Your task to perform on an android device: turn off priority inbox in the gmail app Image 0: 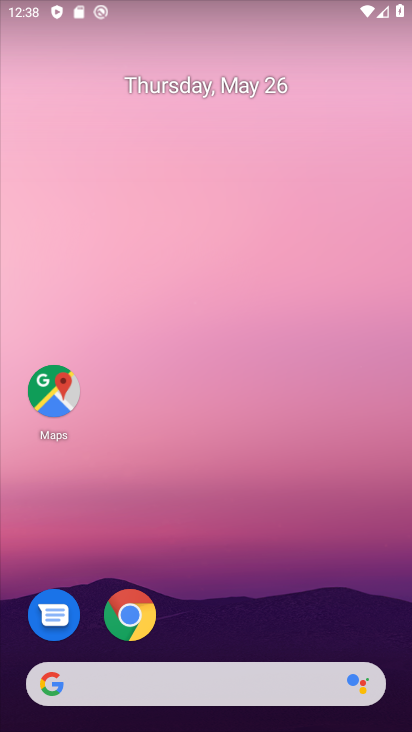
Step 0: drag from (251, 620) to (325, 101)
Your task to perform on an android device: turn off priority inbox in the gmail app Image 1: 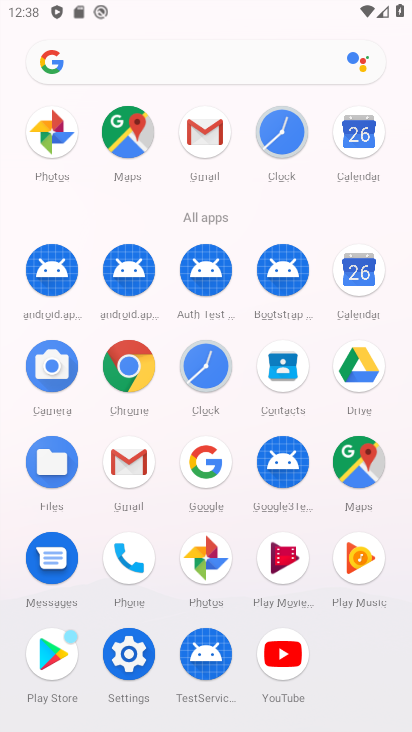
Step 1: click (209, 148)
Your task to perform on an android device: turn off priority inbox in the gmail app Image 2: 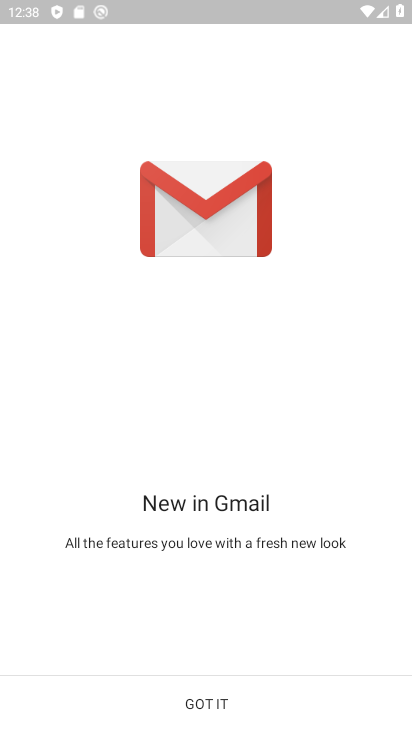
Step 2: click (202, 692)
Your task to perform on an android device: turn off priority inbox in the gmail app Image 3: 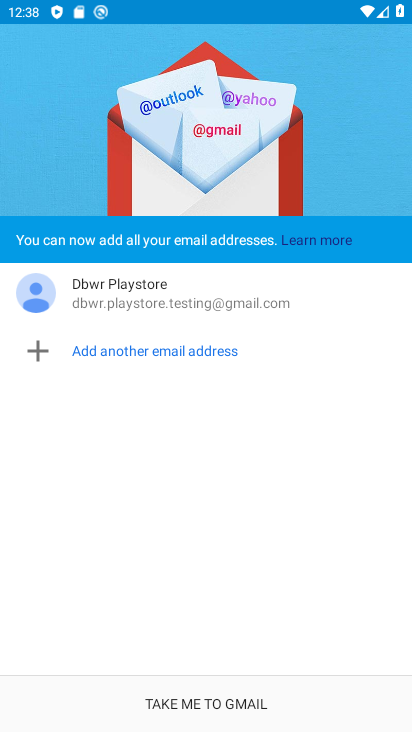
Step 3: click (217, 707)
Your task to perform on an android device: turn off priority inbox in the gmail app Image 4: 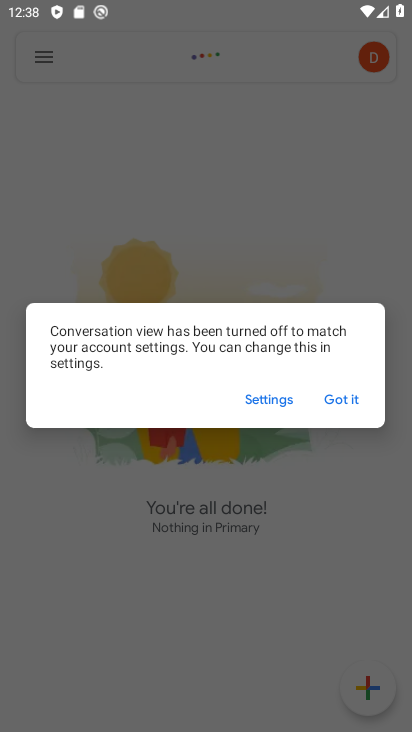
Step 4: click (338, 398)
Your task to perform on an android device: turn off priority inbox in the gmail app Image 5: 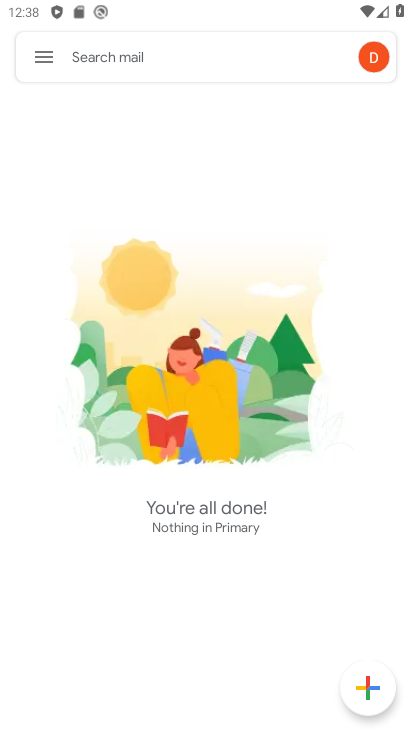
Step 5: click (47, 44)
Your task to perform on an android device: turn off priority inbox in the gmail app Image 6: 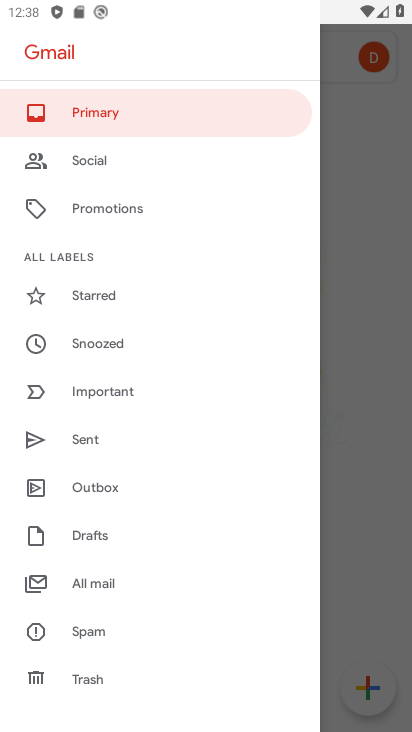
Step 6: drag from (81, 648) to (158, 202)
Your task to perform on an android device: turn off priority inbox in the gmail app Image 7: 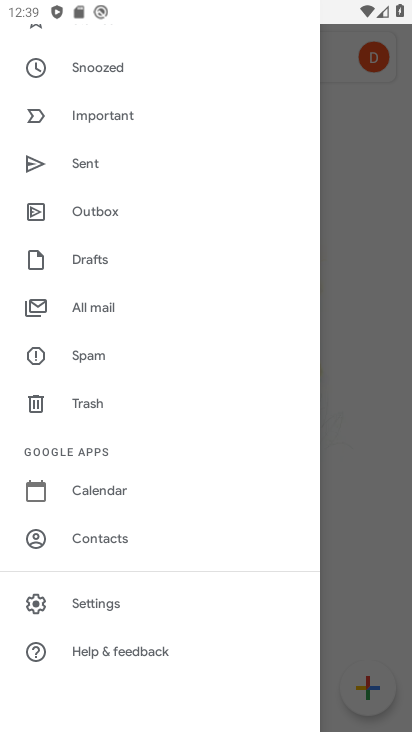
Step 7: click (86, 604)
Your task to perform on an android device: turn off priority inbox in the gmail app Image 8: 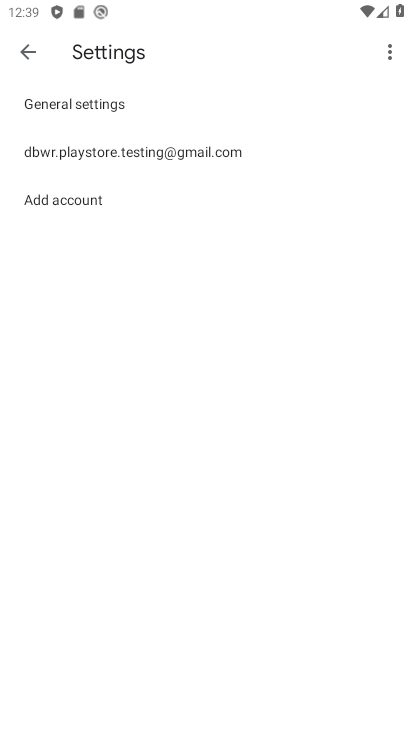
Step 8: click (126, 156)
Your task to perform on an android device: turn off priority inbox in the gmail app Image 9: 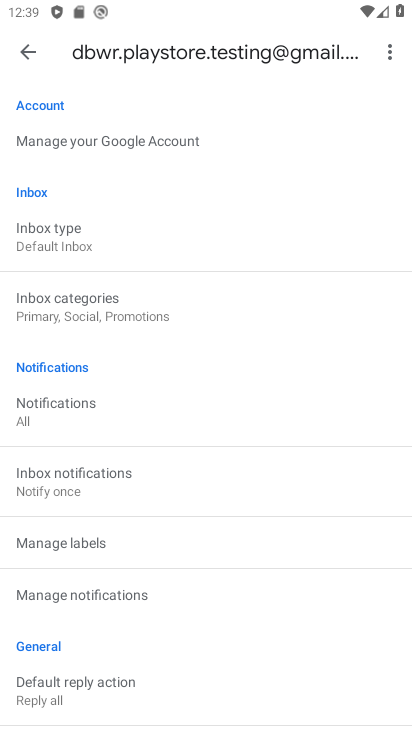
Step 9: click (93, 243)
Your task to perform on an android device: turn off priority inbox in the gmail app Image 10: 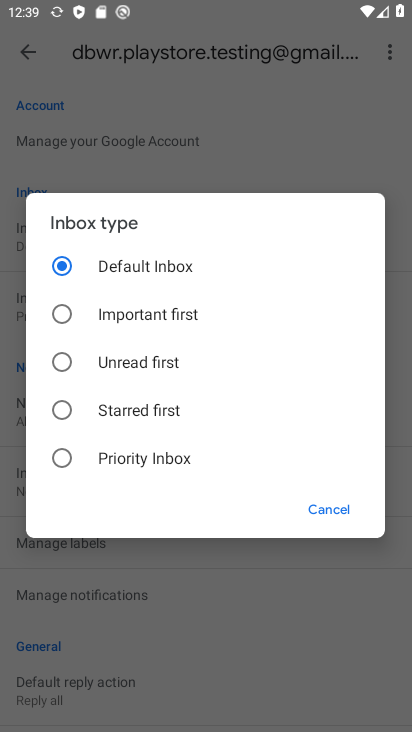
Step 10: click (74, 272)
Your task to perform on an android device: turn off priority inbox in the gmail app Image 11: 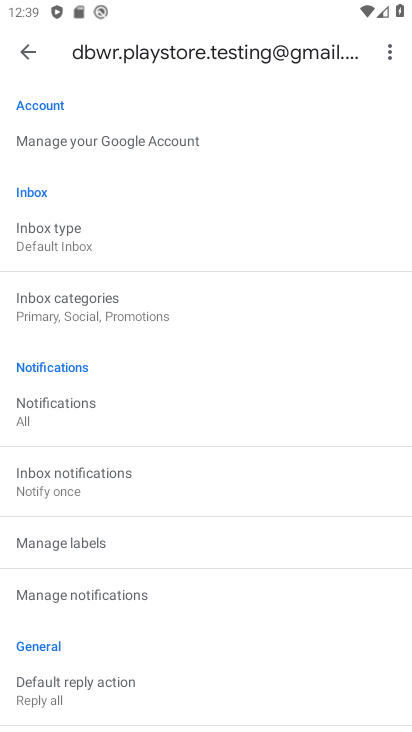
Step 11: task complete